Your task to perform on an android device: toggle wifi Image 0: 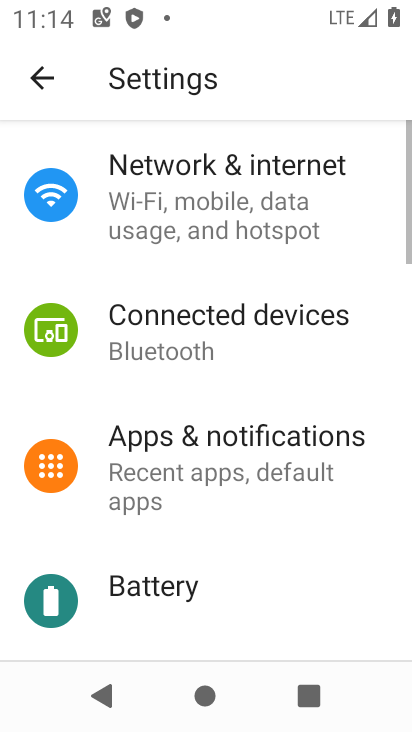
Step 0: drag from (285, 538) to (254, 141)
Your task to perform on an android device: toggle wifi Image 1: 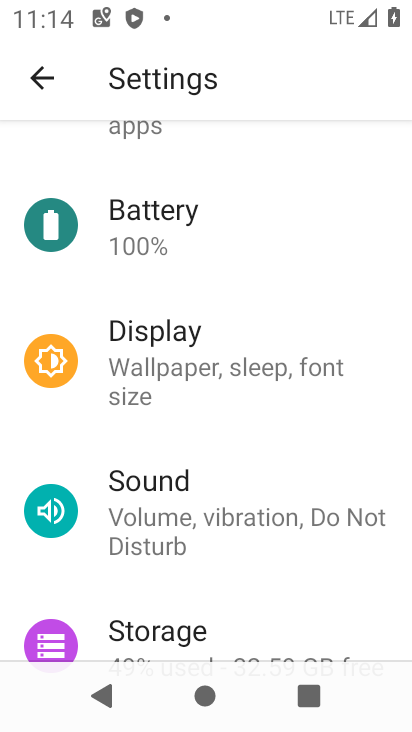
Step 1: press home button
Your task to perform on an android device: toggle wifi Image 2: 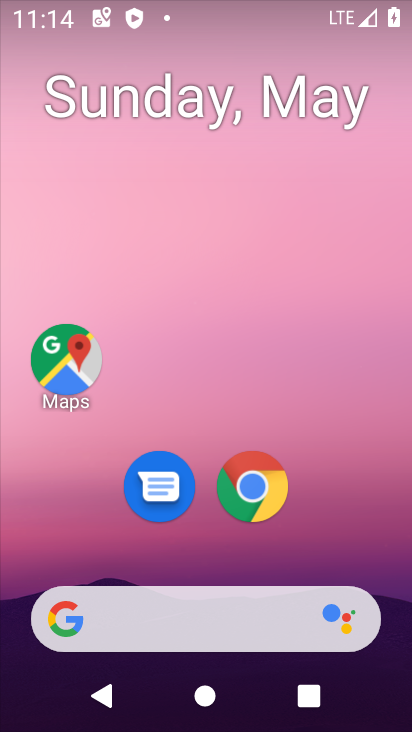
Step 2: drag from (230, 538) to (188, 56)
Your task to perform on an android device: toggle wifi Image 3: 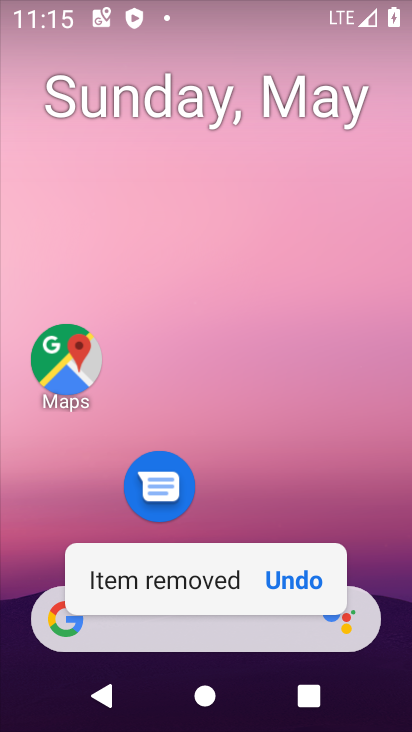
Step 3: click (285, 586)
Your task to perform on an android device: toggle wifi Image 4: 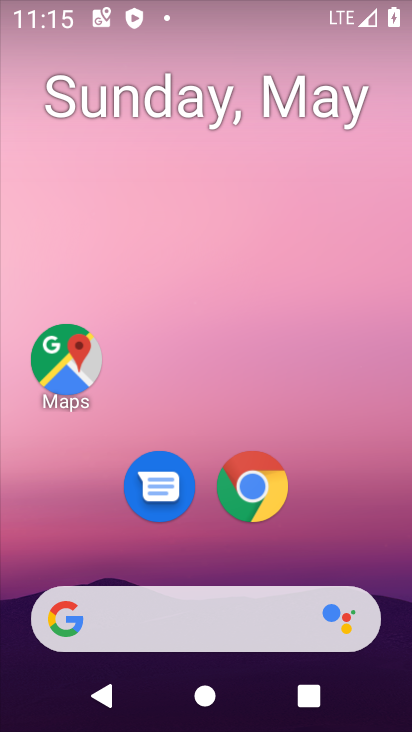
Step 4: drag from (204, 561) to (203, 156)
Your task to perform on an android device: toggle wifi Image 5: 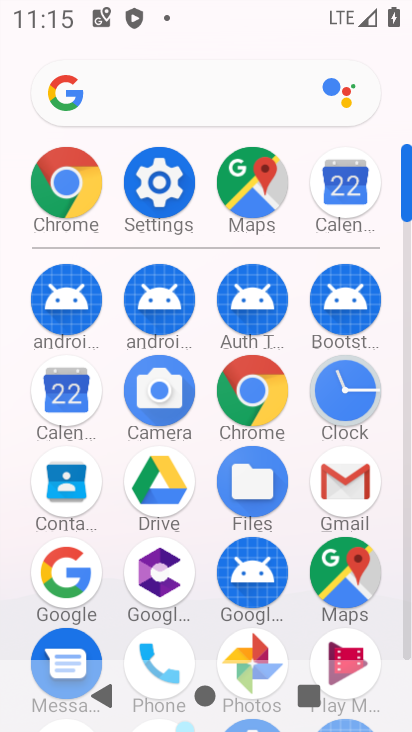
Step 5: click (140, 183)
Your task to perform on an android device: toggle wifi Image 6: 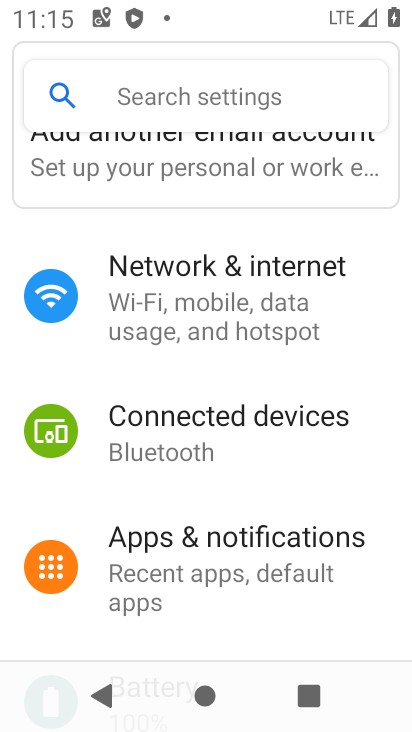
Step 6: click (150, 301)
Your task to perform on an android device: toggle wifi Image 7: 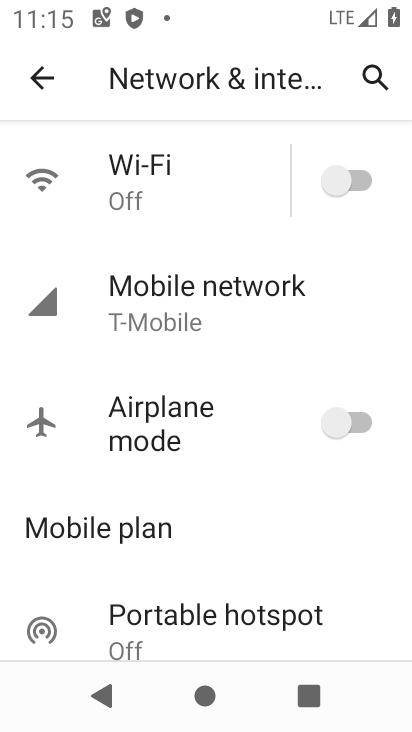
Step 7: click (361, 184)
Your task to perform on an android device: toggle wifi Image 8: 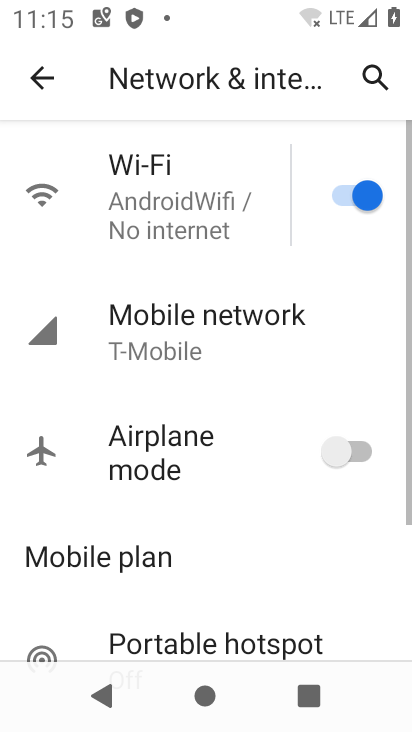
Step 8: task complete